Your task to perform on an android device: When is my next meeting? Image 0: 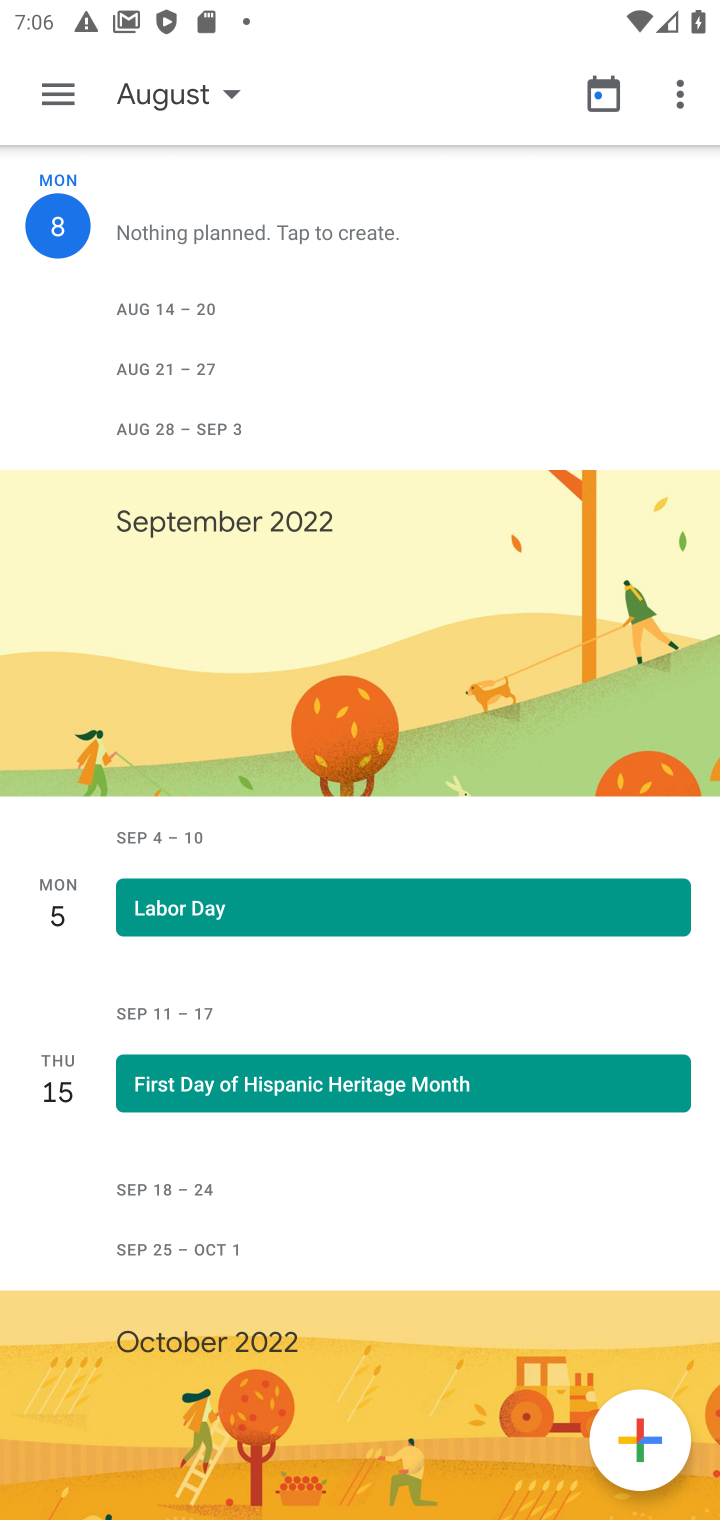
Step 0: press home button
Your task to perform on an android device: When is my next meeting? Image 1: 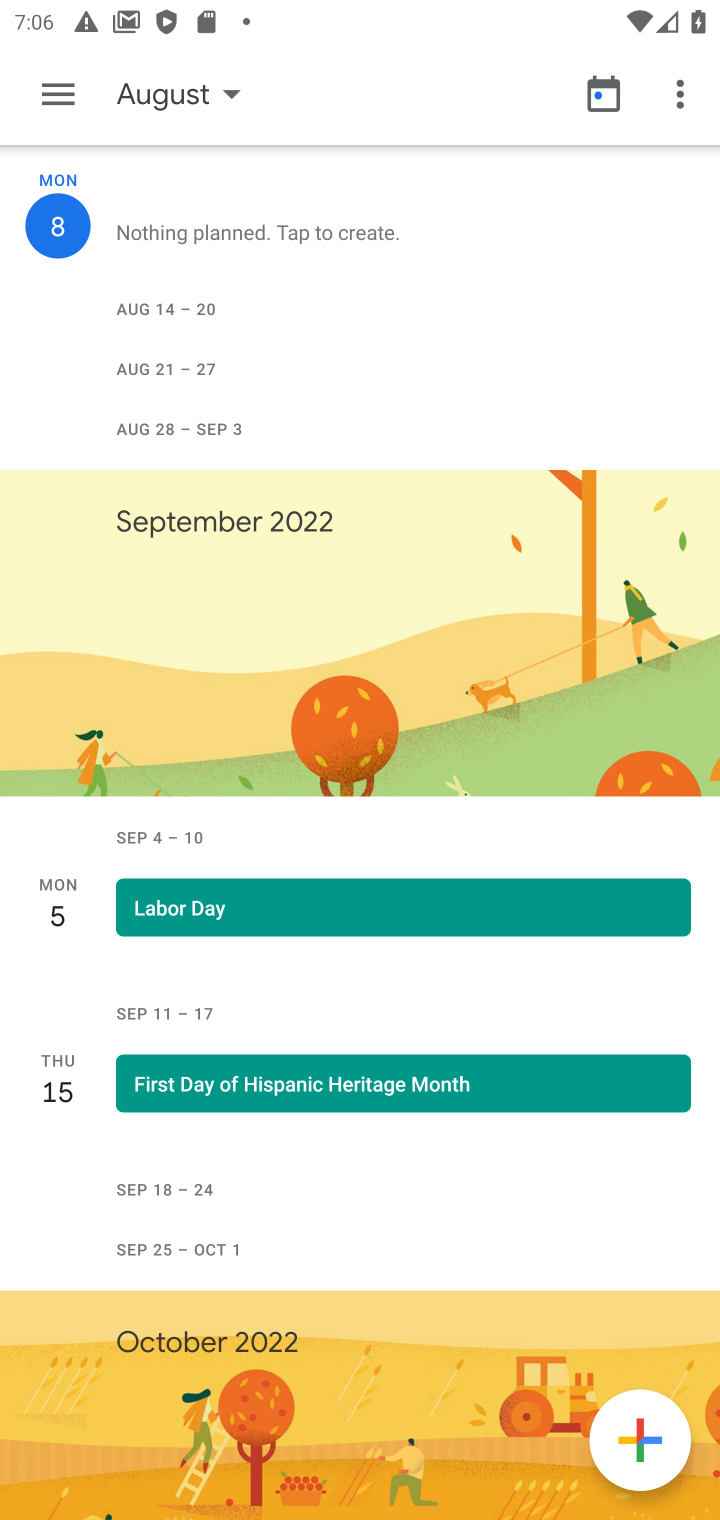
Step 1: task complete